Your task to perform on an android device: turn on the 24-hour format for clock Image 0: 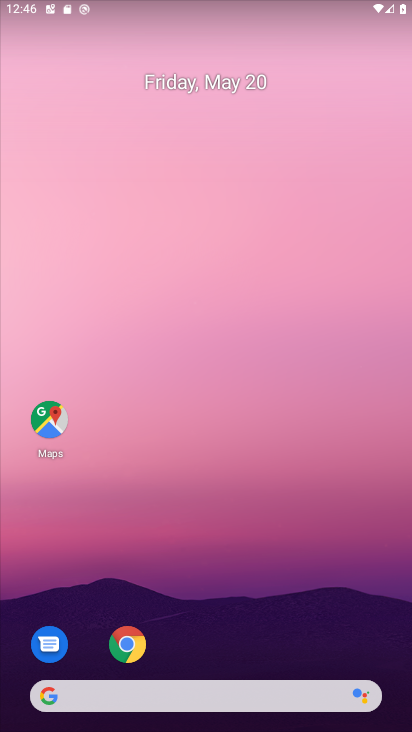
Step 0: drag from (176, 669) to (213, 382)
Your task to perform on an android device: turn on the 24-hour format for clock Image 1: 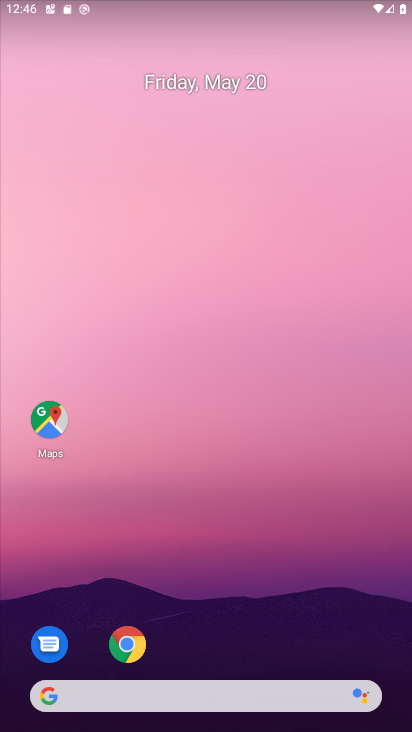
Step 1: drag from (234, 673) to (281, 323)
Your task to perform on an android device: turn on the 24-hour format for clock Image 2: 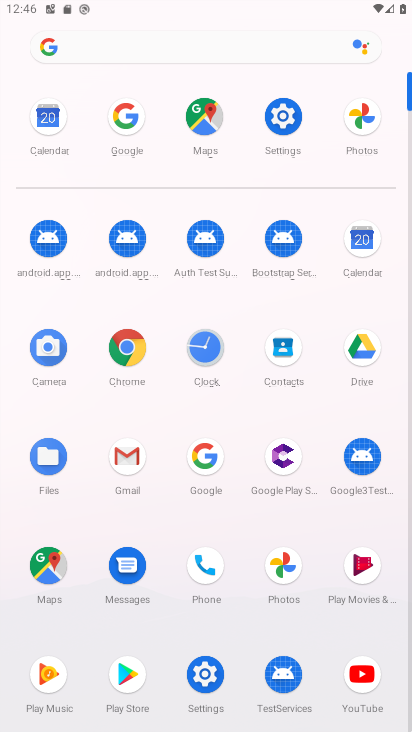
Step 2: click (203, 351)
Your task to perform on an android device: turn on the 24-hour format for clock Image 3: 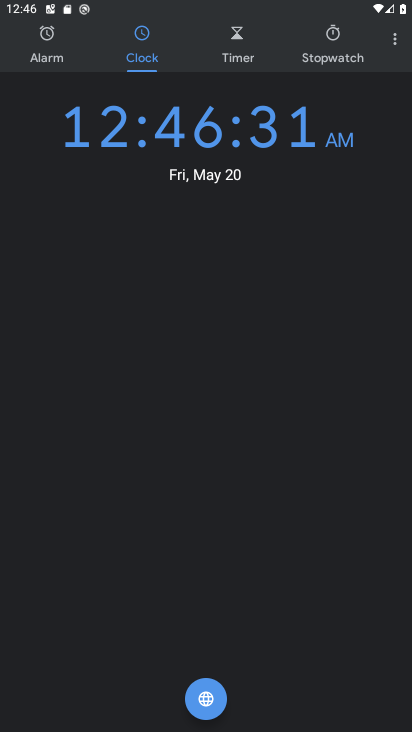
Step 3: click (385, 39)
Your task to perform on an android device: turn on the 24-hour format for clock Image 4: 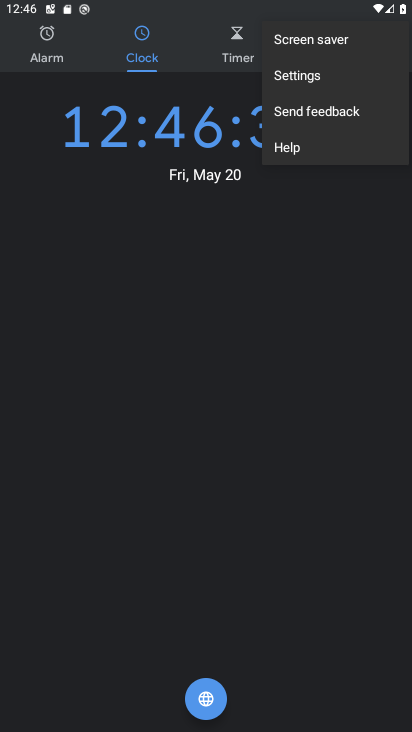
Step 4: click (323, 78)
Your task to perform on an android device: turn on the 24-hour format for clock Image 5: 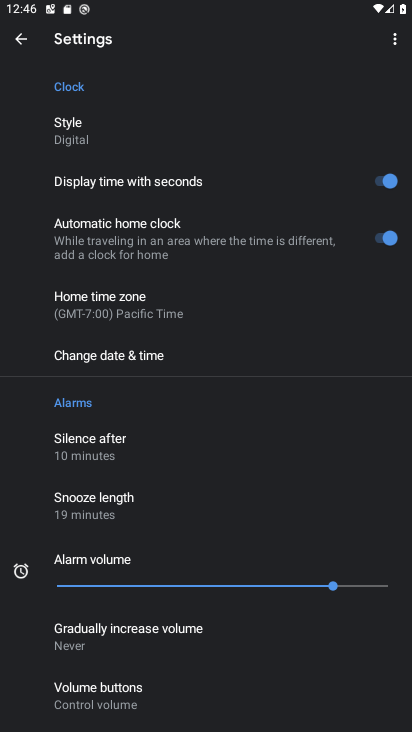
Step 5: click (101, 359)
Your task to perform on an android device: turn on the 24-hour format for clock Image 6: 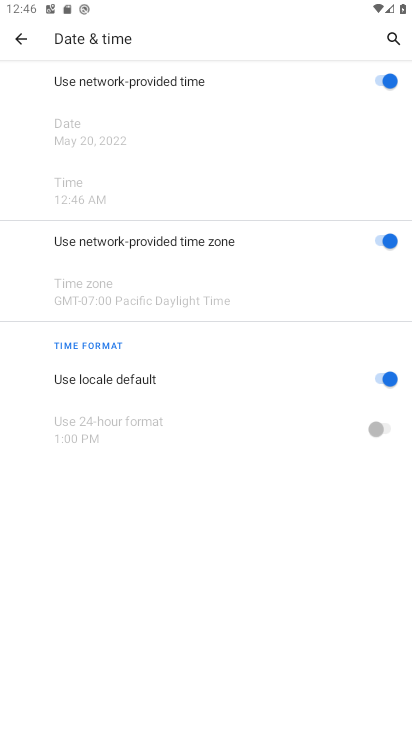
Step 6: click (394, 426)
Your task to perform on an android device: turn on the 24-hour format for clock Image 7: 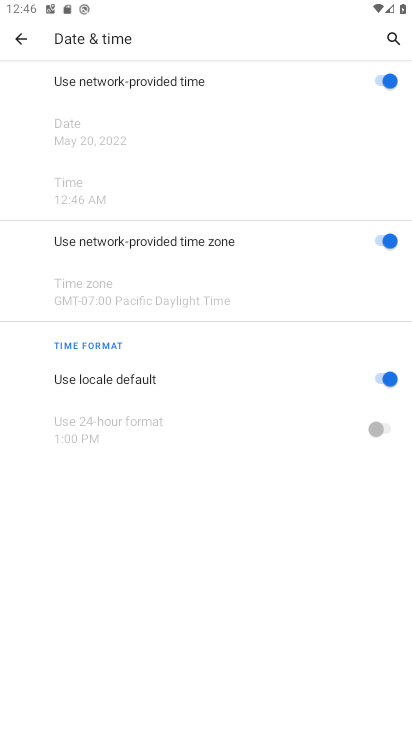
Step 7: click (380, 430)
Your task to perform on an android device: turn on the 24-hour format for clock Image 8: 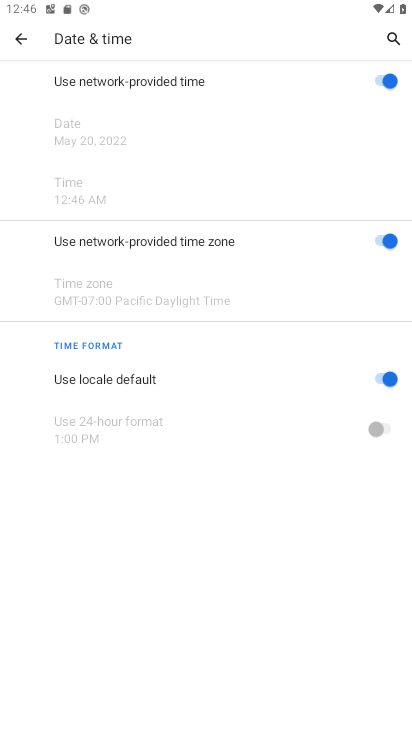
Step 8: click (386, 379)
Your task to perform on an android device: turn on the 24-hour format for clock Image 9: 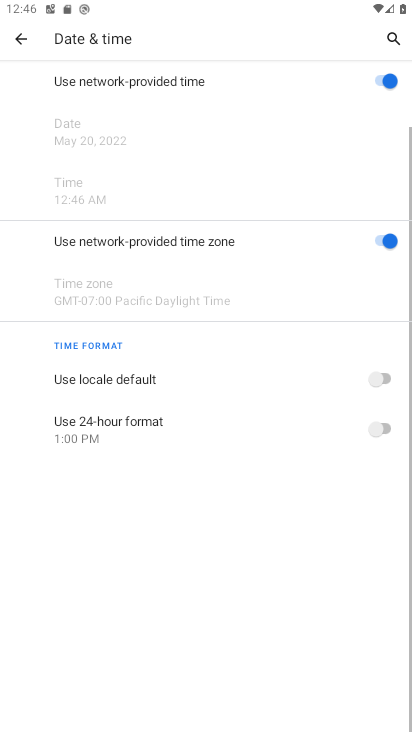
Step 9: click (388, 427)
Your task to perform on an android device: turn on the 24-hour format for clock Image 10: 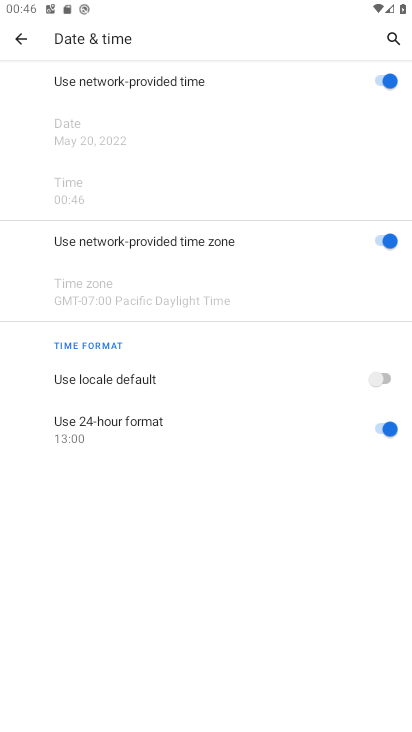
Step 10: task complete